Your task to perform on an android device: What is the capital of Japan? Image 0: 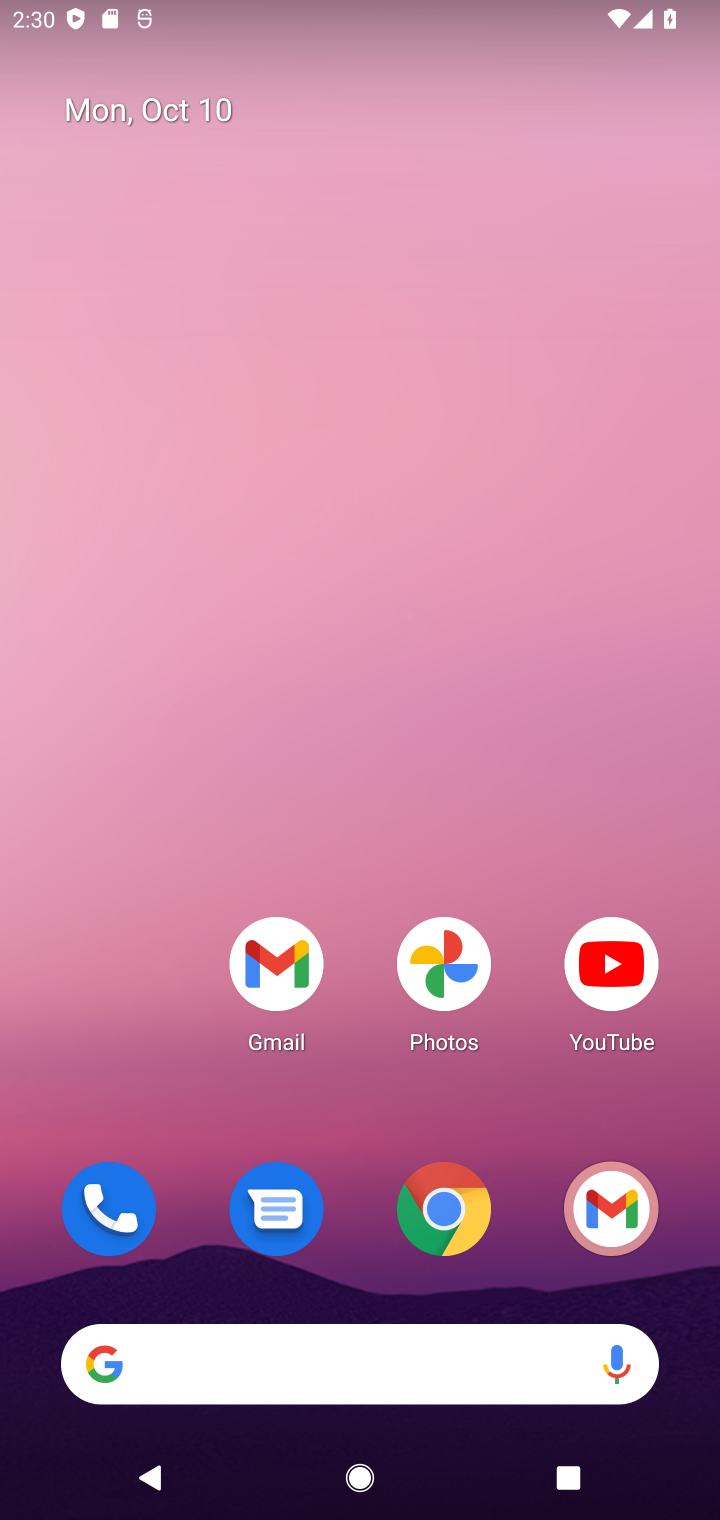
Step 0: click (460, 1182)
Your task to perform on an android device: What is the capital of Japan? Image 1: 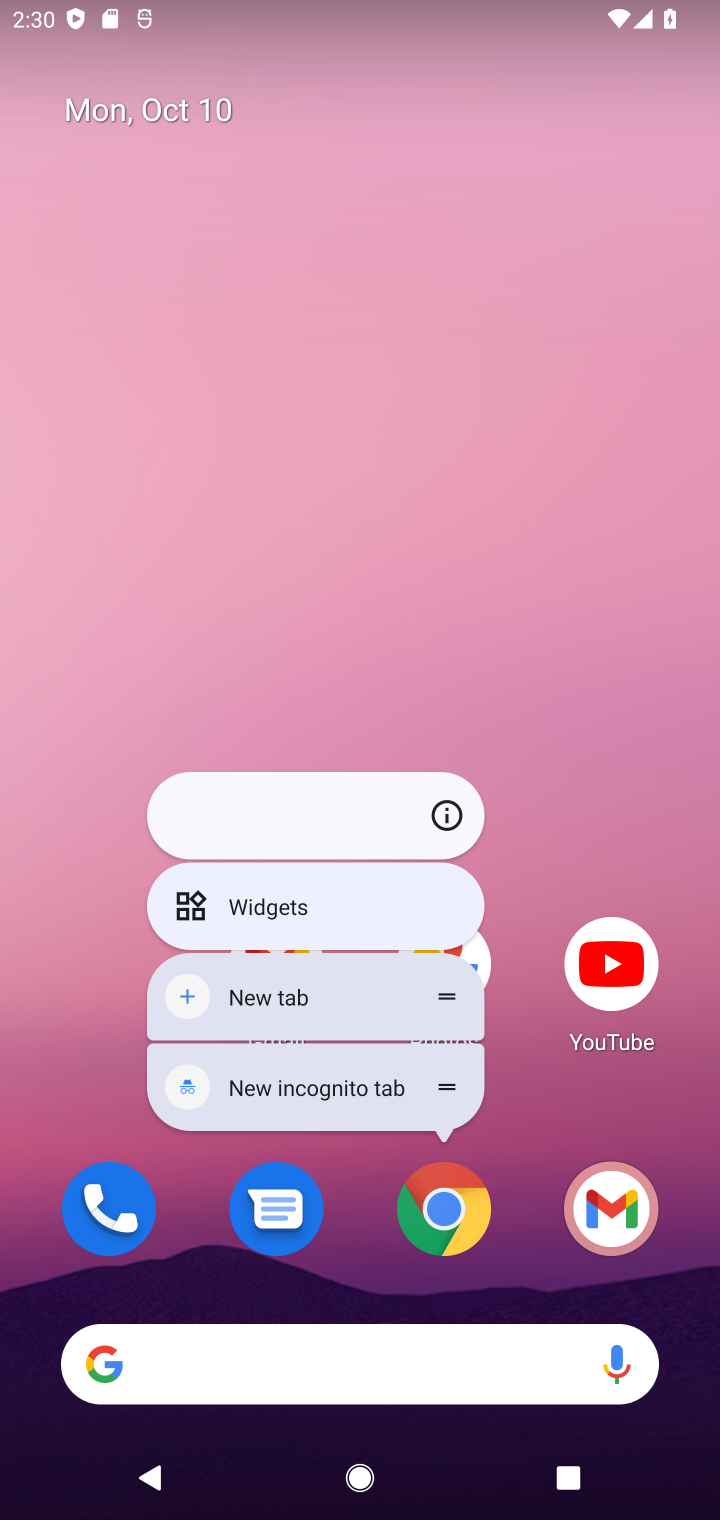
Step 1: click (460, 1182)
Your task to perform on an android device: What is the capital of Japan? Image 2: 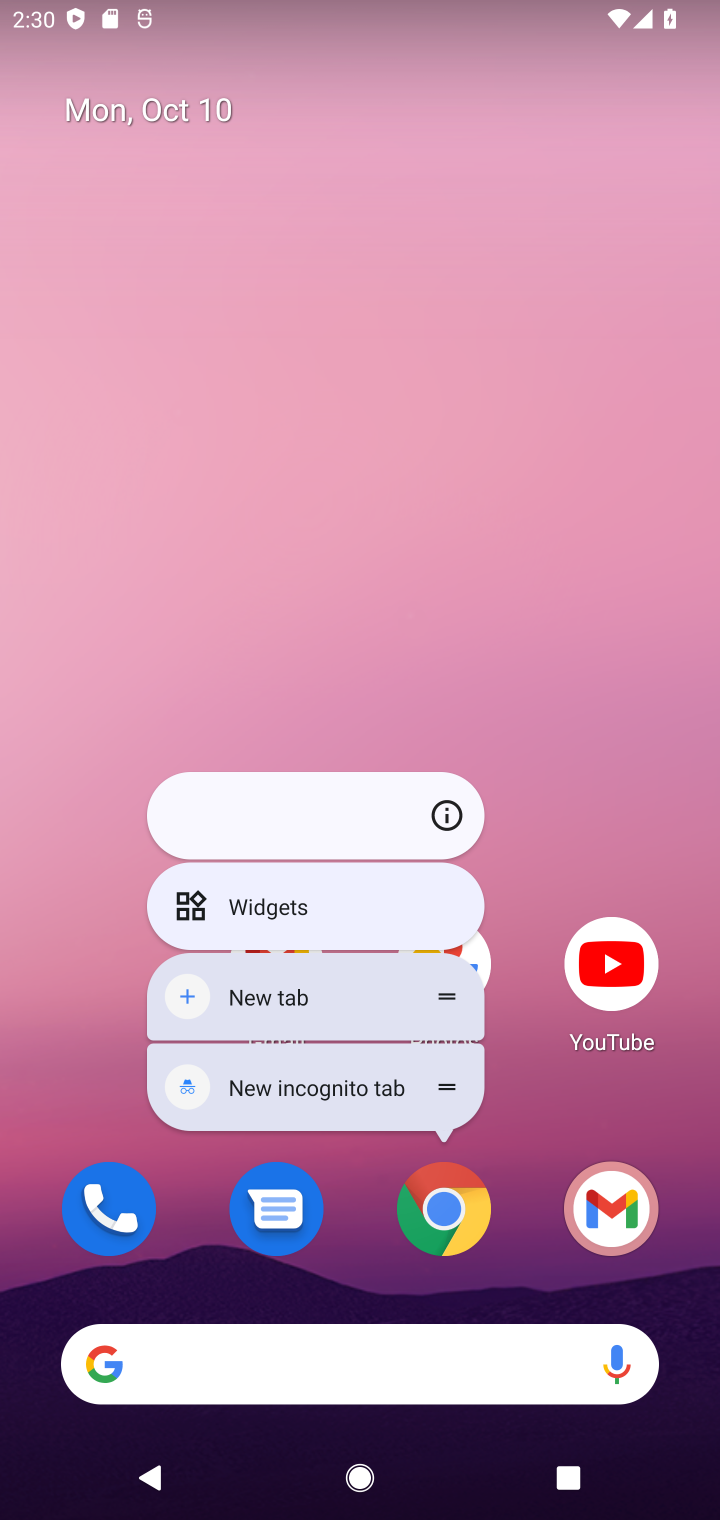
Step 2: click (398, 1204)
Your task to perform on an android device: What is the capital of Japan? Image 3: 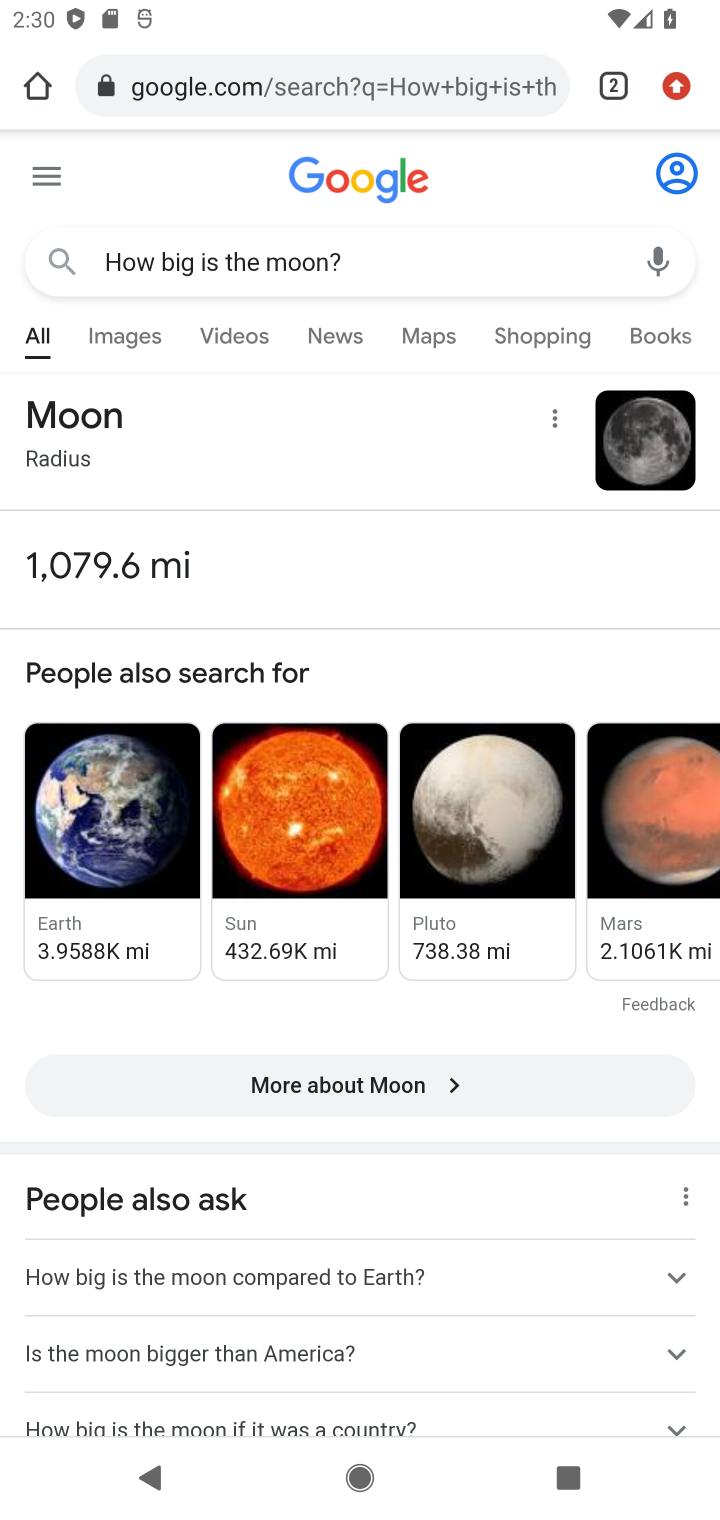
Step 3: click (377, 261)
Your task to perform on an android device: What is the capital of Japan? Image 4: 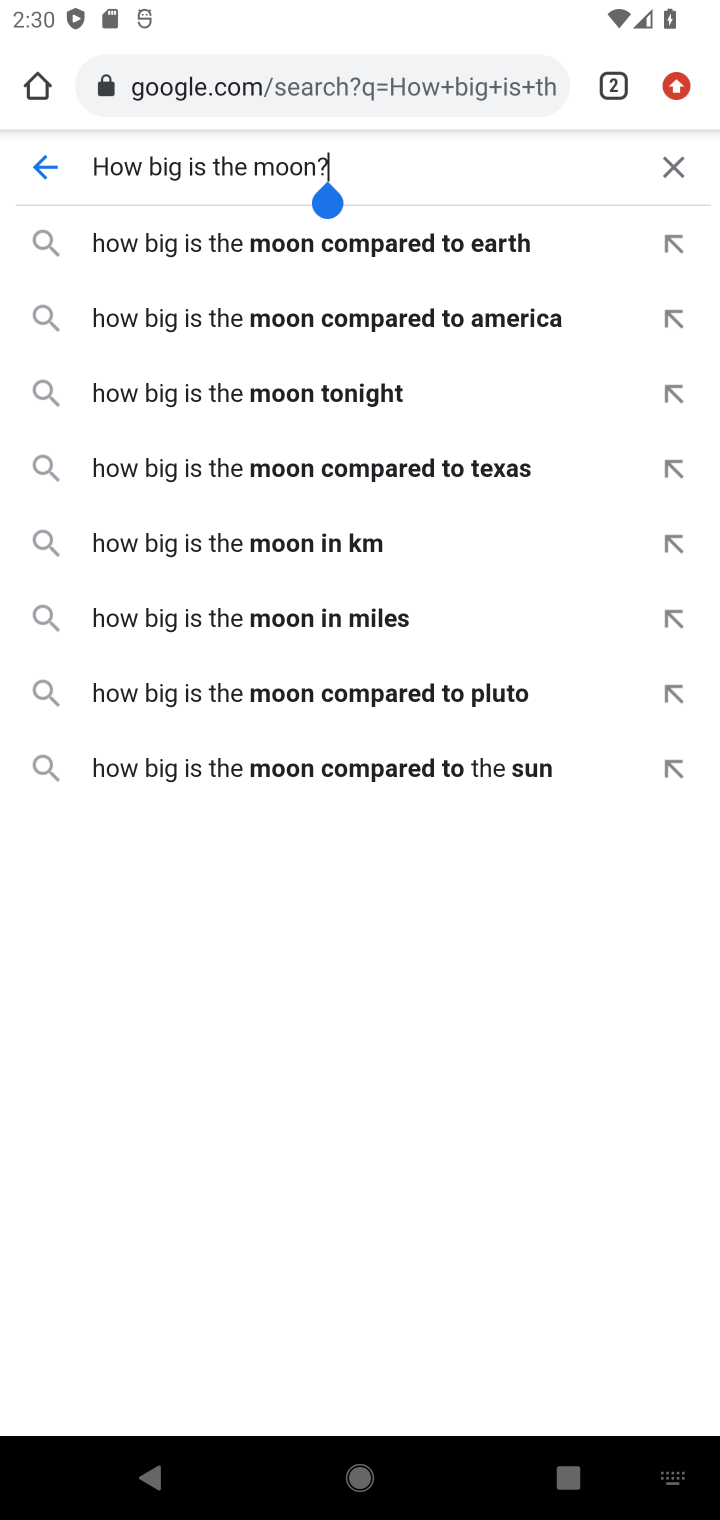
Step 4: click (674, 178)
Your task to perform on an android device: What is the capital of Japan? Image 5: 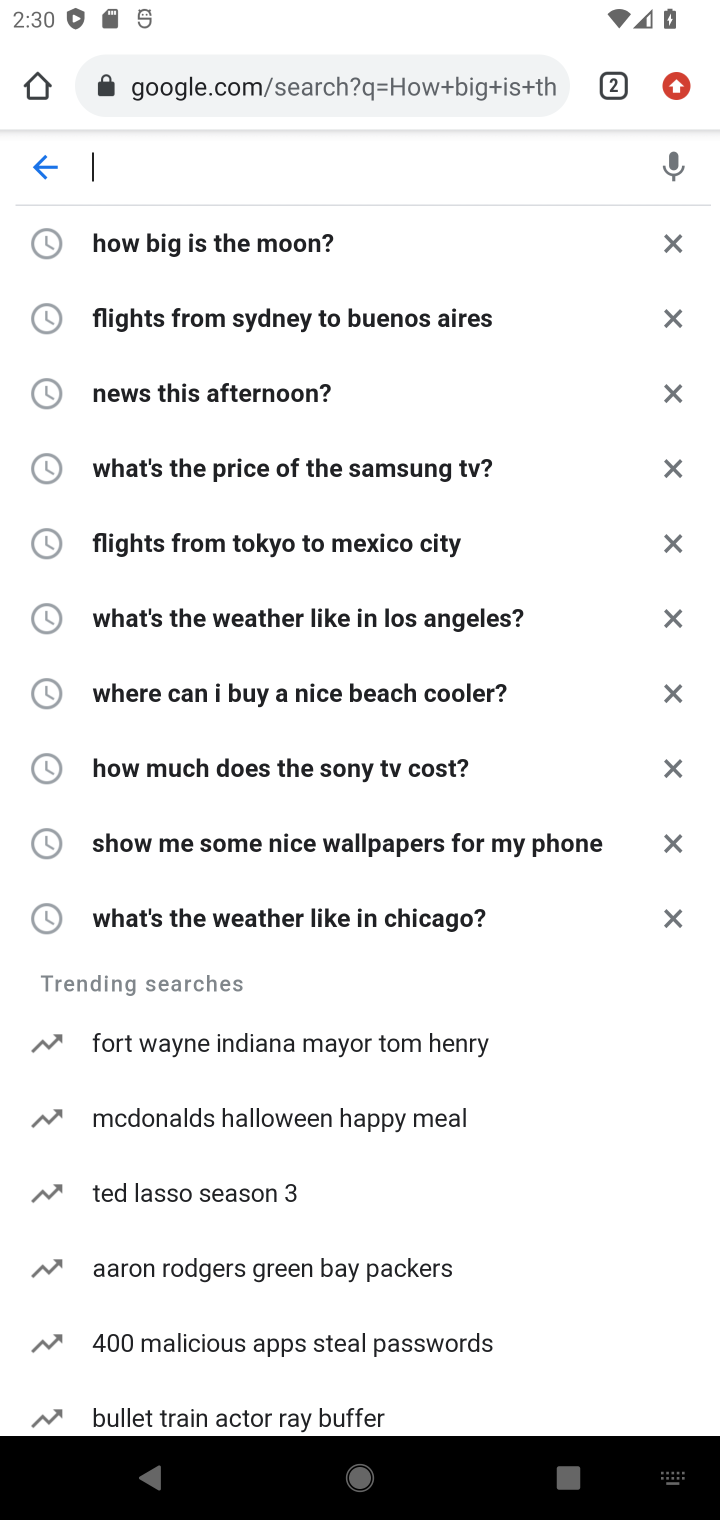
Step 5: type "capital of Japan?"
Your task to perform on an android device: What is the capital of Japan? Image 6: 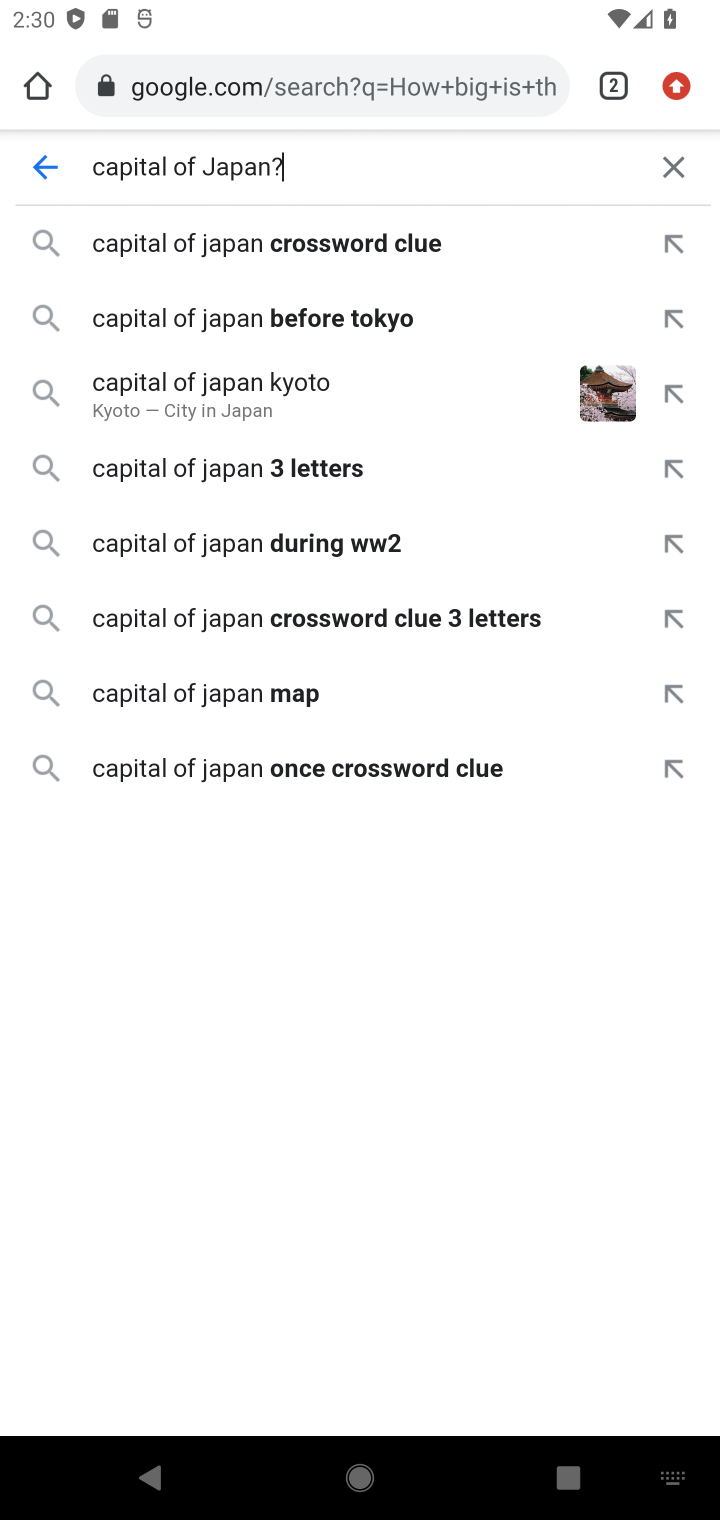
Step 6: press enter
Your task to perform on an android device: What is the capital of Japan? Image 7: 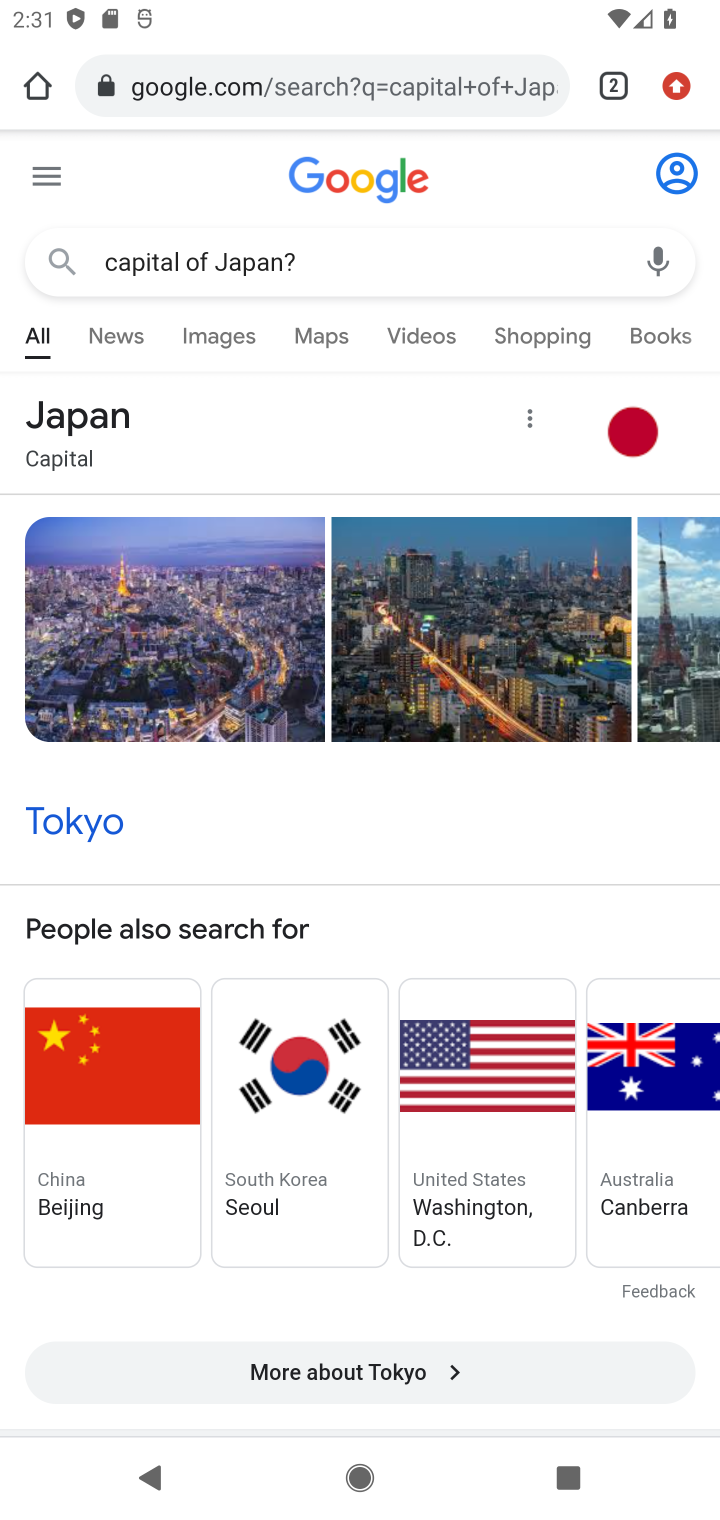
Step 7: task complete